Your task to perform on an android device: turn off improve location accuracy Image 0: 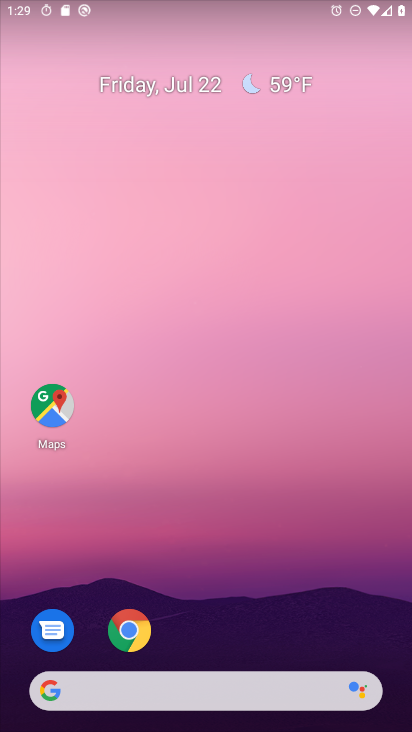
Step 0: press home button
Your task to perform on an android device: turn off improve location accuracy Image 1: 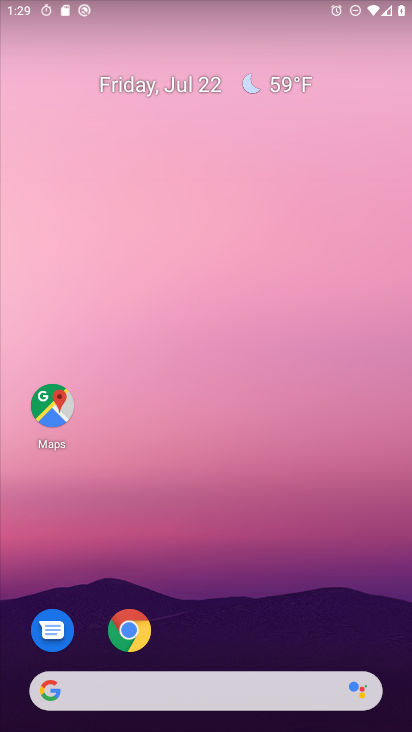
Step 1: drag from (202, 638) to (229, 225)
Your task to perform on an android device: turn off improve location accuracy Image 2: 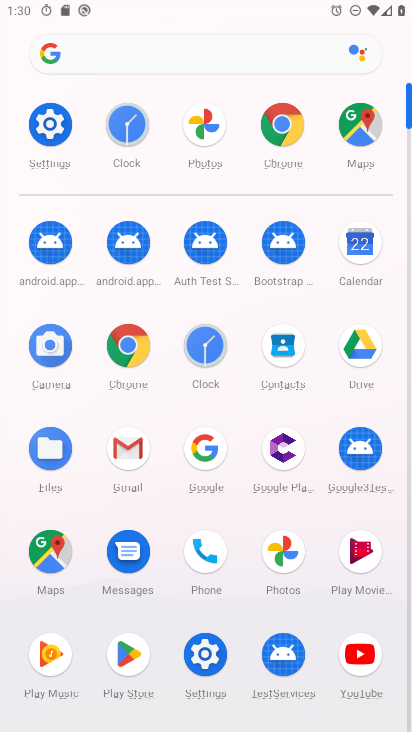
Step 2: click (54, 121)
Your task to perform on an android device: turn off improve location accuracy Image 3: 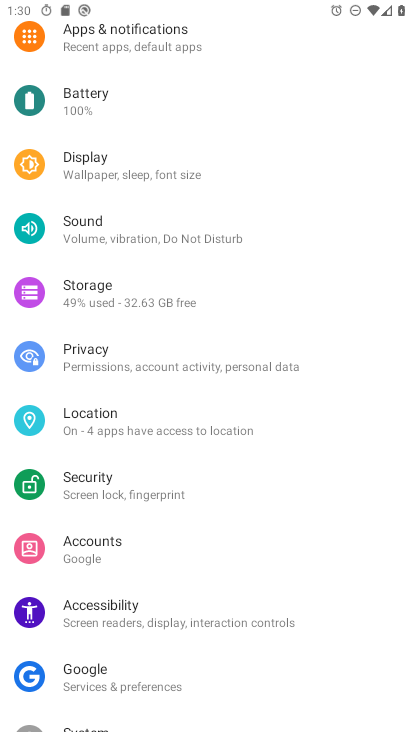
Step 3: click (95, 428)
Your task to perform on an android device: turn off improve location accuracy Image 4: 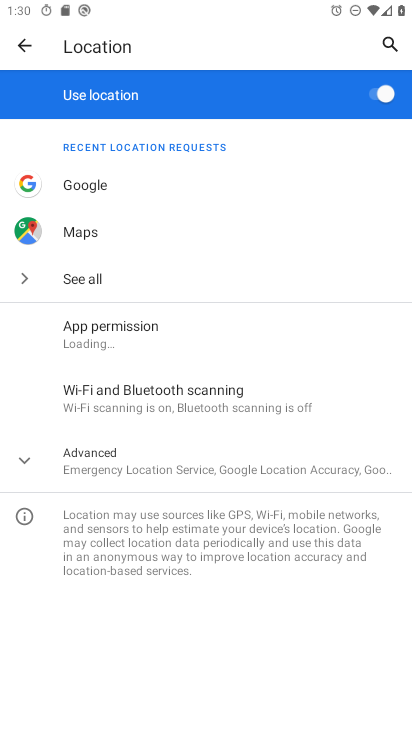
Step 4: click (76, 467)
Your task to perform on an android device: turn off improve location accuracy Image 5: 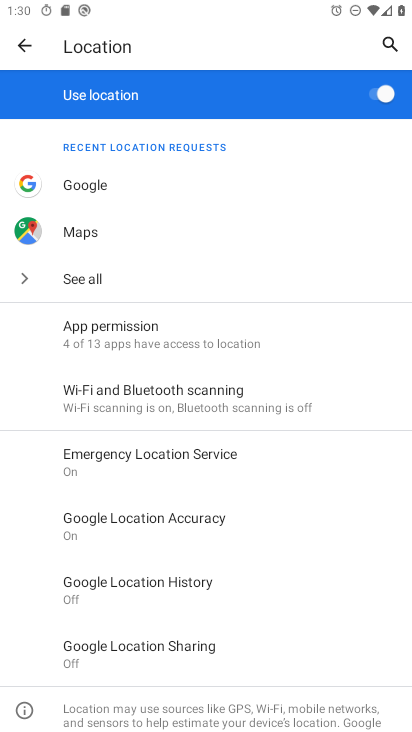
Step 5: drag from (277, 596) to (277, 170)
Your task to perform on an android device: turn off improve location accuracy Image 6: 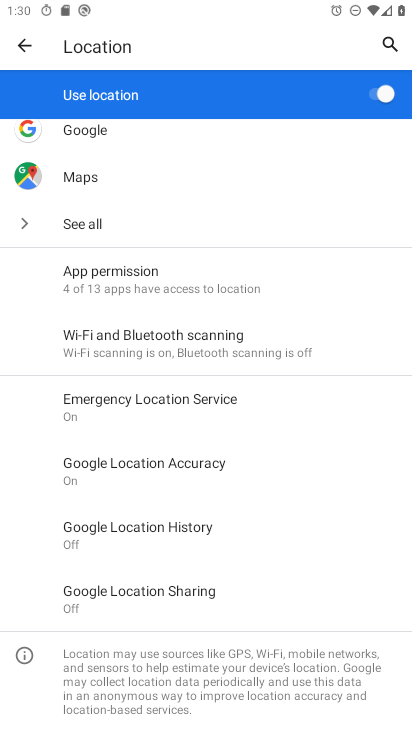
Step 6: click (167, 466)
Your task to perform on an android device: turn off improve location accuracy Image 7: 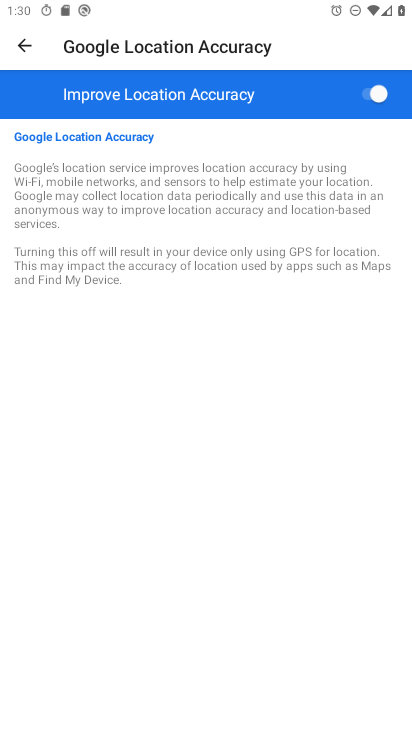
Step 7: click (380, 96)
Your task to perform on an android device: turn off improve location accuracy Image 8: 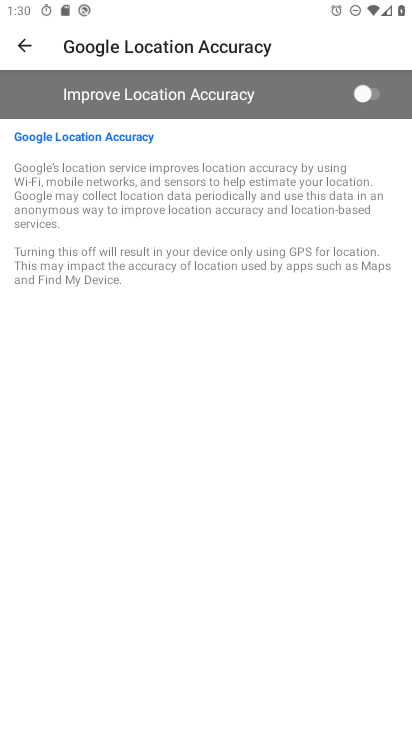
Step 8: task complete